Your task to perform on an android device: Go to Android settings Image 0: 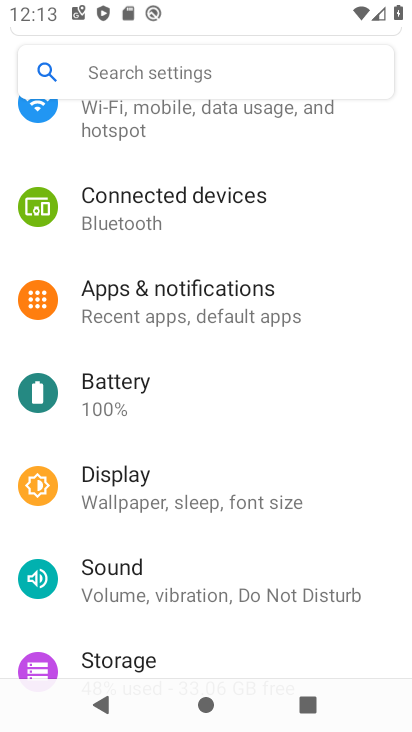
Step 0: task complete